Your task to perform on an android device: turn off sleep mode Image 0: 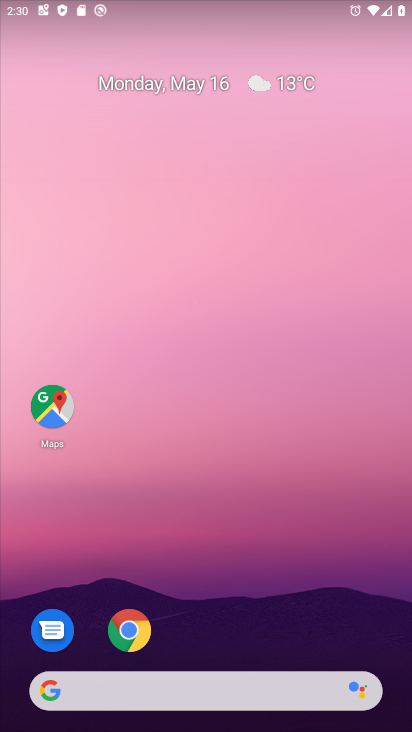
Step 0: drag from (282, 427) to (282, 137)
Your task to perform on an android device: turn off sleep mode Image 1: 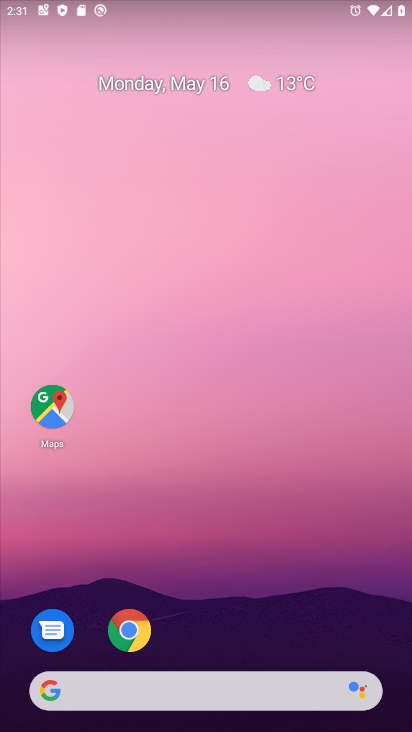
Step 1: drag from (234, 642) to (235, 182)
Your task to perform on an android device: turn off sleep mode Image 2: 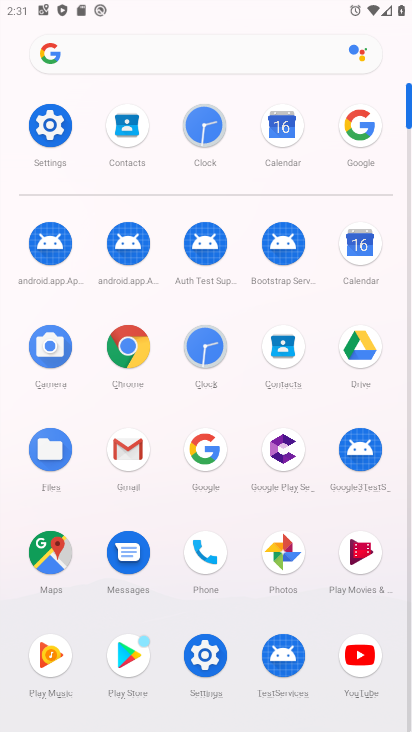
Step 2: click (39, 130)
Your task to perform on an android device: turn off sleep mode Image 3: 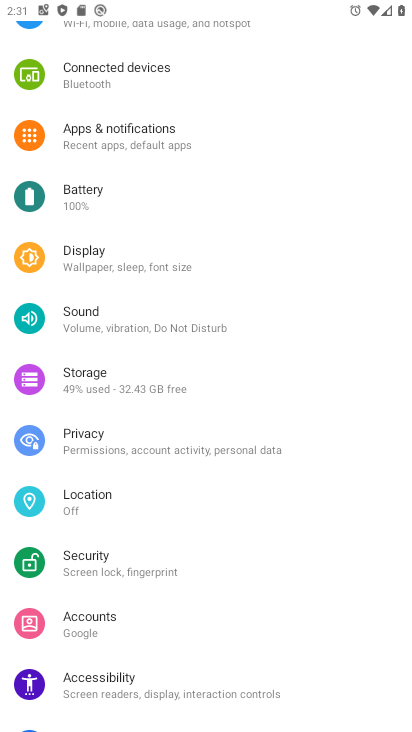
Step 3: click (132, 267)
Your task to perform on an android device: turn off sleep mode Image 4: 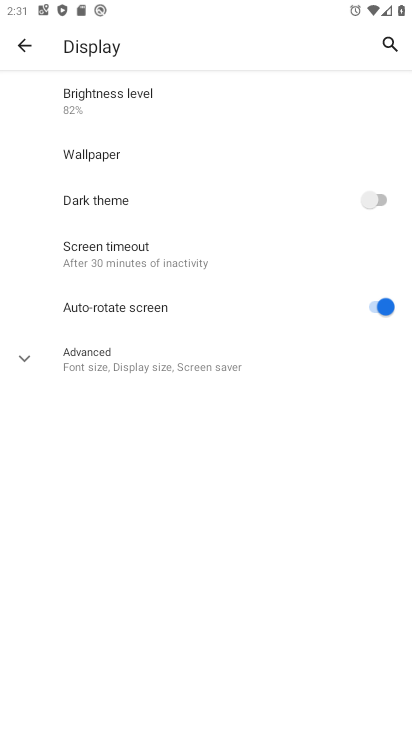
Step 4: task complete